Your task to perform on an android device: toggle priority inbox in the gmail app Image 0: 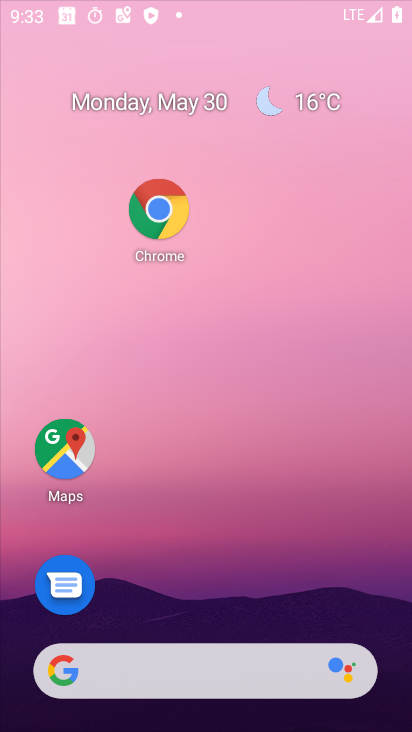
Step 0: click (284, 14)
Your task to perform on an android device: toggle priority inbox in the gmail app Image 1: 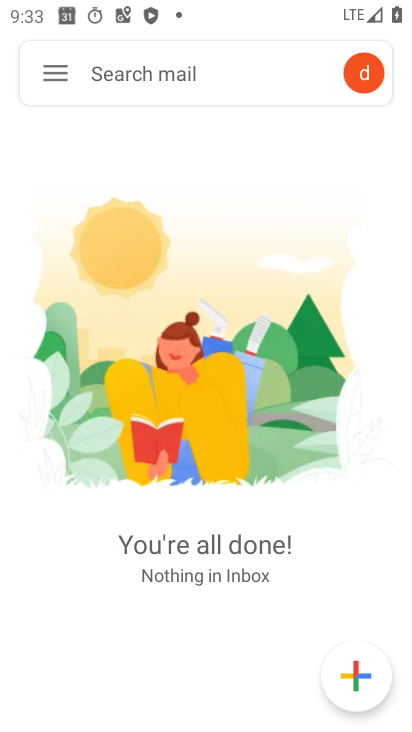
Step 1: press home button
Your task to perform on an android device: toggle priority inbox in the gmail app Image 2: 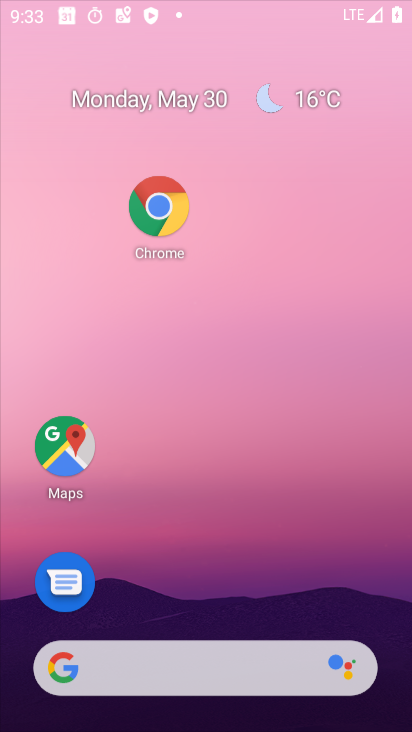
Step 2: drag from (210, 602) to (327, 220)
Your task to perform on an android device: toggle priority inbox in the gmail app Image 3: 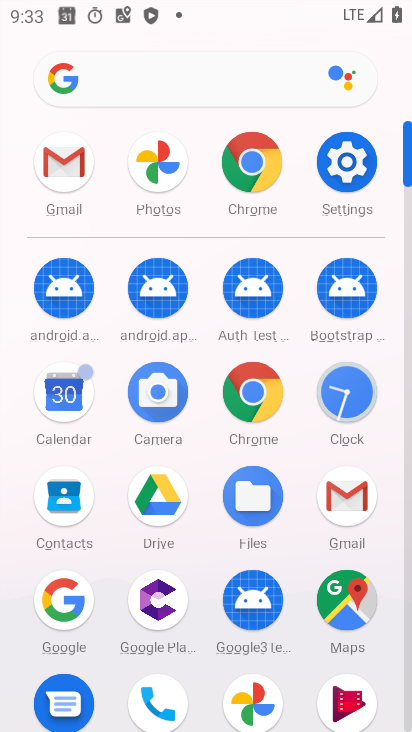
Step 3: click (358, 514)
Your task to perform on an android device: toggle priority inbox in the gmail app Image 4: 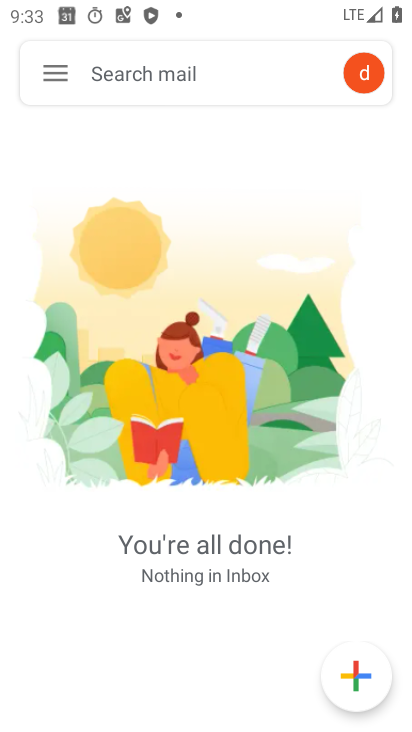
Step 4: click (50, 73)
Your task to perform on an android device: toggle priority inbox in the gmail app Image 5: 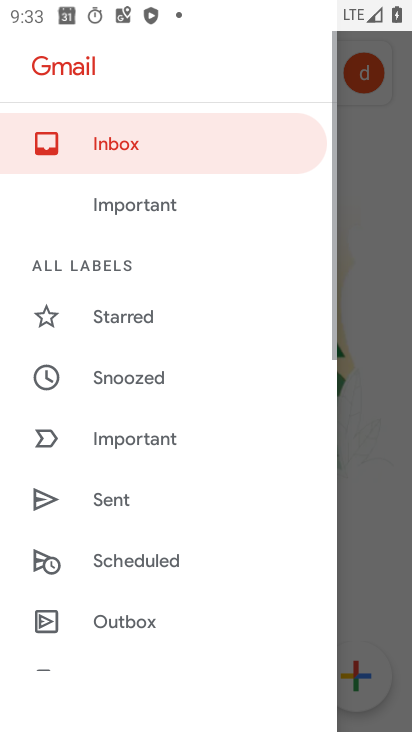
Step 5: drag from (143, 604) to (271, 0)
Your task to perform on an android device: toggle priority inbox in the gmail app Image 6: 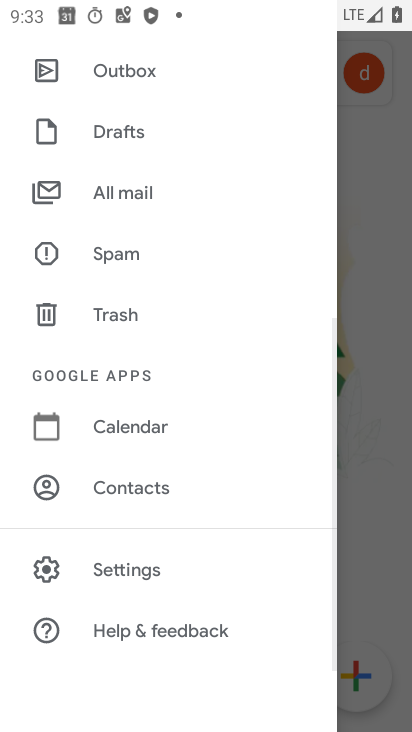
Step 6: click (114, 581)
Your task to perform on an android device: toggle priority inbox in the gmail app Image 7: 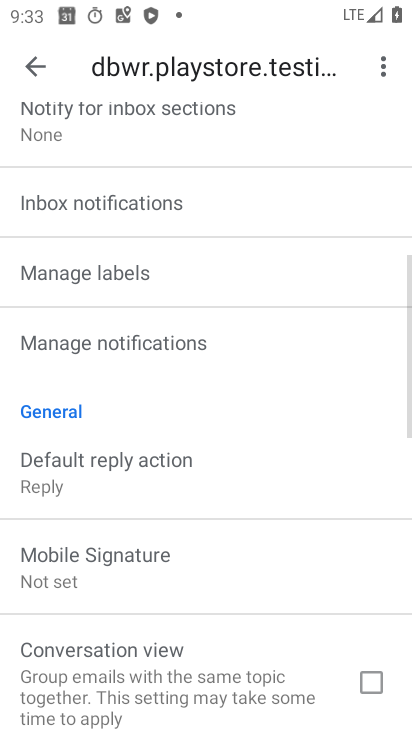
Step 7: drag from (163, 215) to (212, 658)
Your task to perform on an android device: toggle priority inbox in the gmail app Image 8: 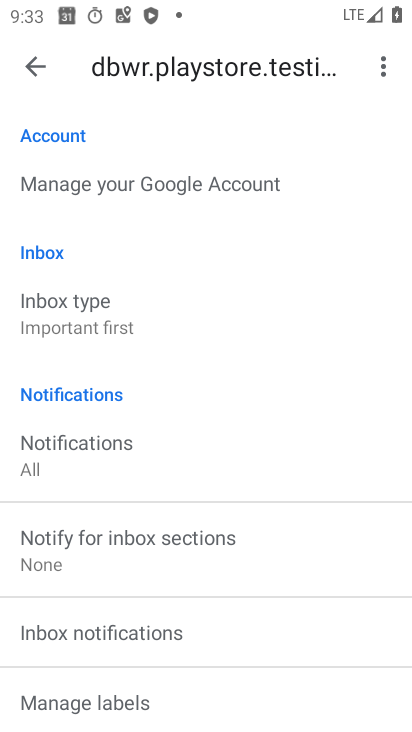
Step 8: click (116, 309)
Your task to perform on an android device: toggle priority inbox in the gmail app Image 9: 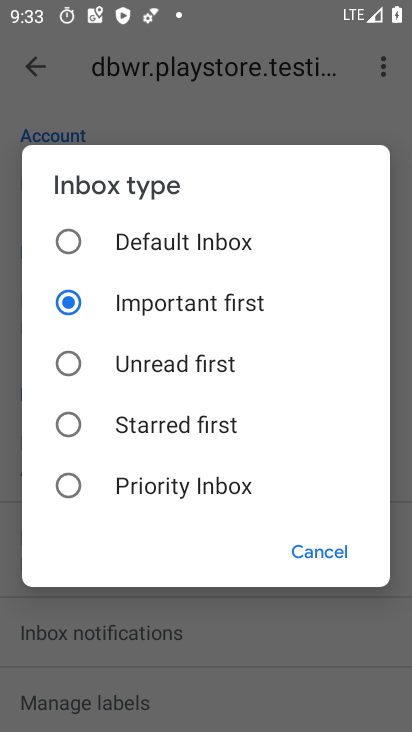
Step 9: click (91, 493)
Your task to perform on an android device: toggle priority inbox in the gmail app Image 10: 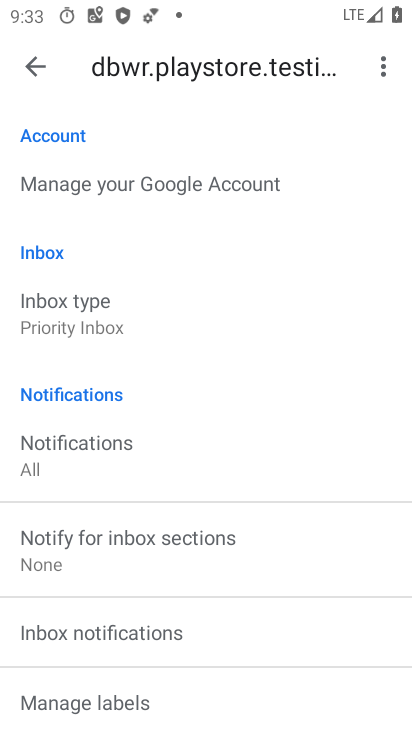
Step 10: task complete